Your task to perform on an android device: turn on airplane mode Image 0: 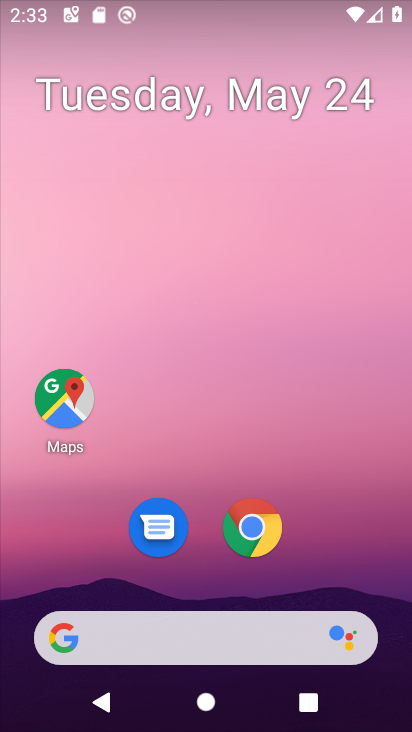
Step 0: drag from (348, 587) to (336, 75)
Your task to perform on an android device: turn on airplane mode Image 1: 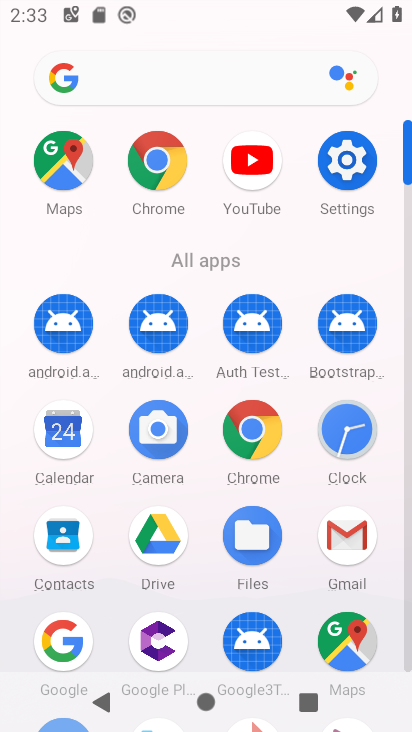
Step 1: click (348, 159)
Your task to perform on an android device: turn on airplane mode Image 2: 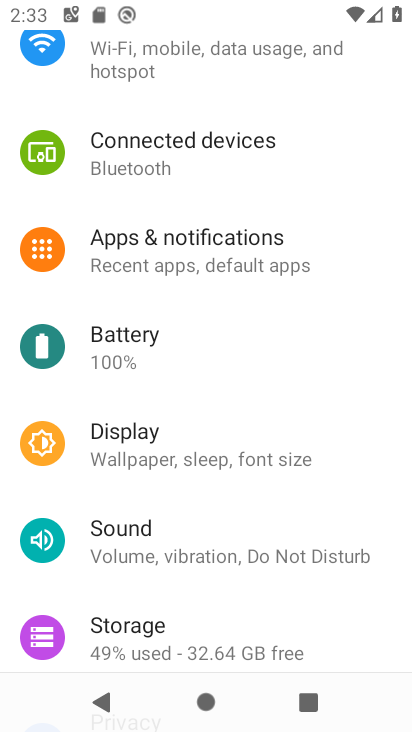
Step 2: click (176, 49)
Your task to perform on an android device: turn on airplane mode Image 3: 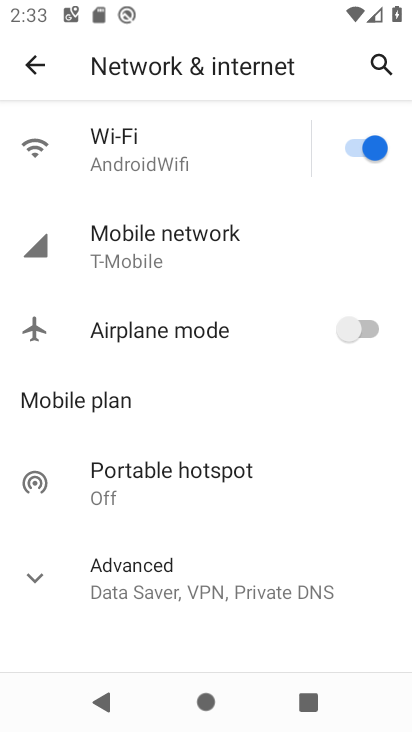
Step 3: click (373, 330)
Your task to perform on an android device: turn on airplane mode Image 4: 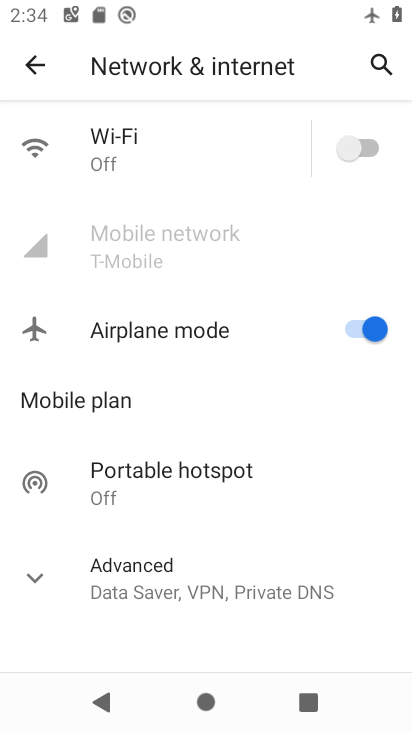
Step 4: task complete